Your task to perform on an android device: change notification settings in the gmail app Image 0: 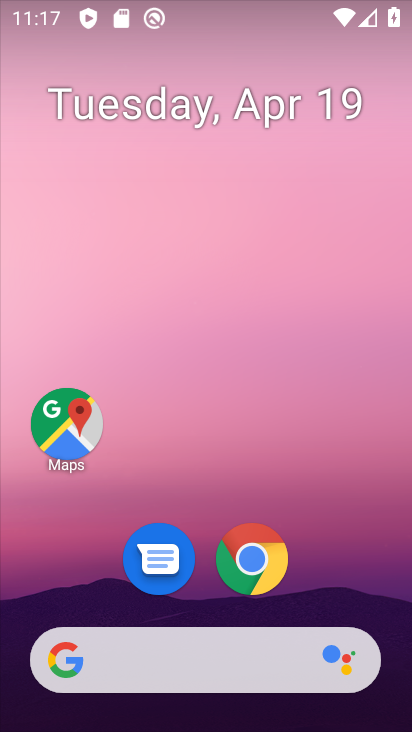
Step 0: click (183, 157)
Your task to perform on an android device: change notification settings in the gmail app Image 1: 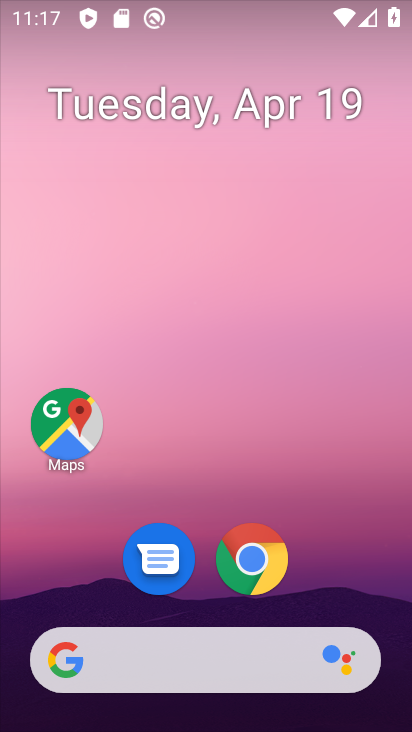
Step 1: drag from (265, 656) to (132, 196)
Your task to perform on an android device: change notification settings in the gmail app Image 2: 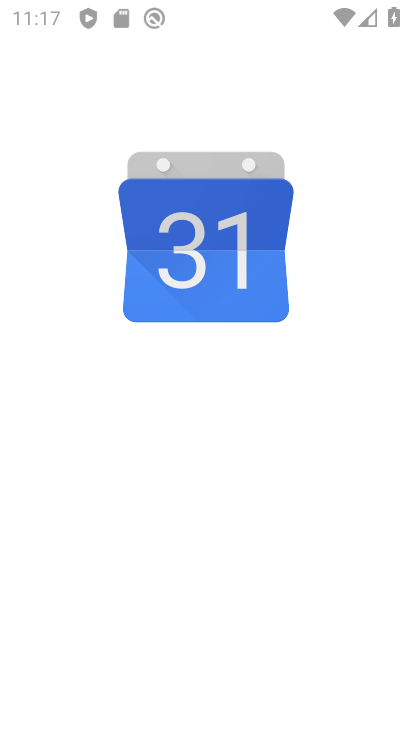
Step 2: drag from (188, 374) to (188, 170)
Your task to perform on an android device: change notification settings in the gmail app Image 3: 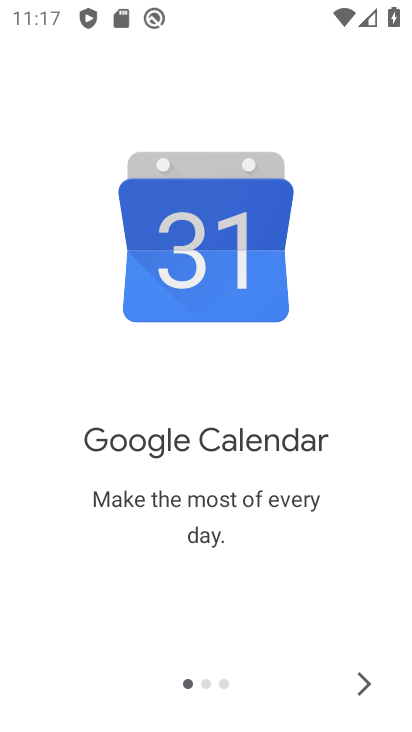
Step 3: click (363, 678)
Your task to perform on an android device: change notification settings in the gmail app Image 4: 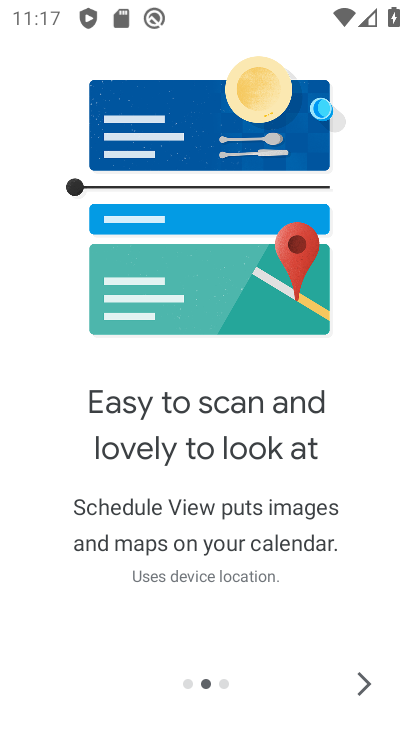
Step 4: click (364, 679)
Your task to perform on an android device: change notification settings in the gmail app Image 5: 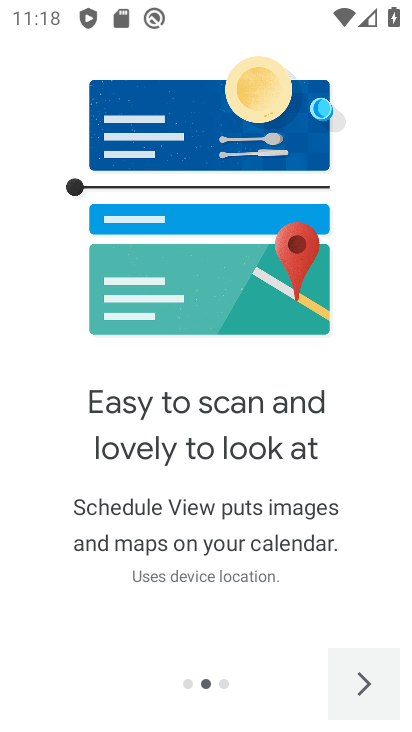
Step 5: click (362, 680)
Your task to perform on an android device: change notification settings in the gmail app Image 6: 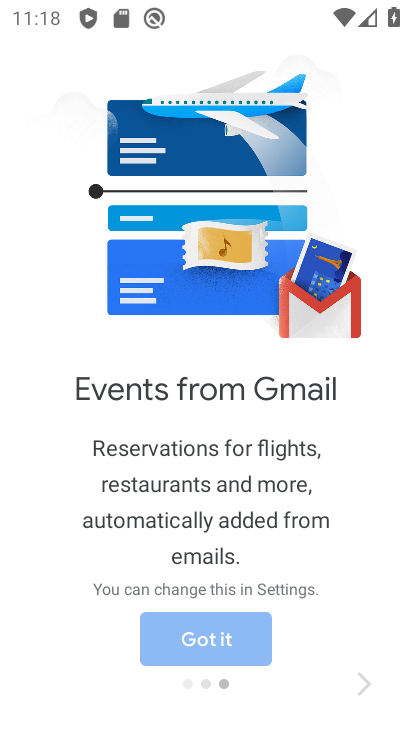
Step 6: click (362, 681)
Your task to perform on an android device: change notification settings in the gmail app Image 7: 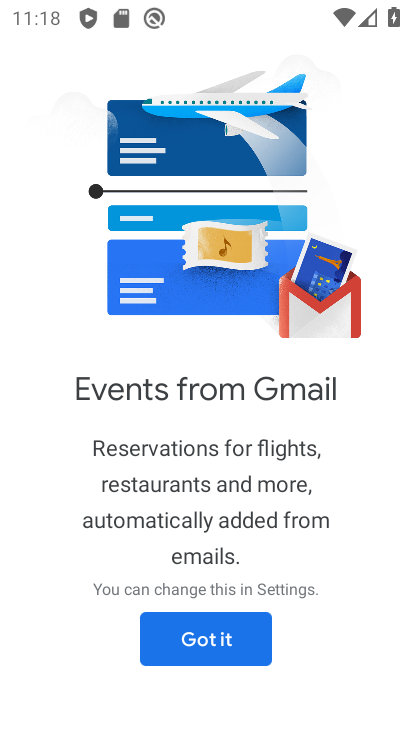
Step 7: click (363, 681)
Your task to perform on an android device: change notification settings in the gmail app Image 8: 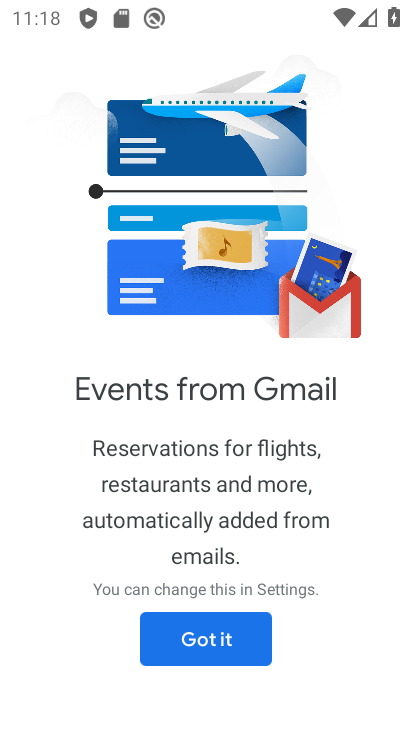
Step 8: click (211, 647)
Your task to perform on an android device: change notification settings in the gmail app Image 9: 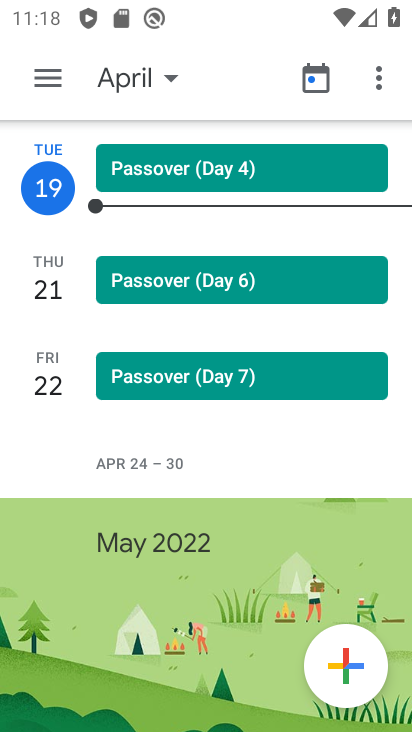
Step 9: press home button
Your task to perform on an android device: change notification settings in the gmail app Image 10: 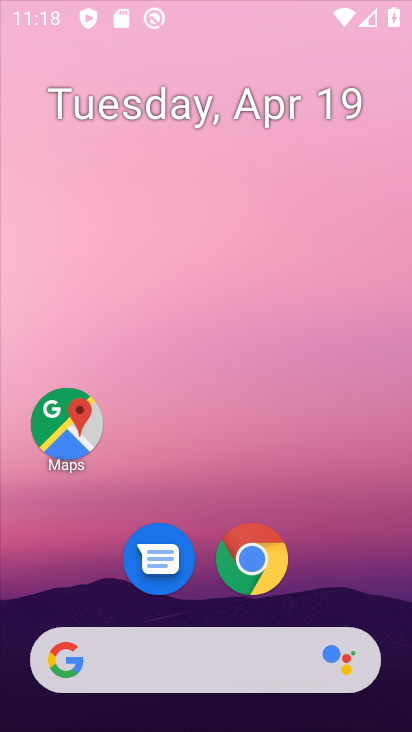
Step 10: press home button
Your task to perform on an android device: change notification settings in the gmail app Image 11: 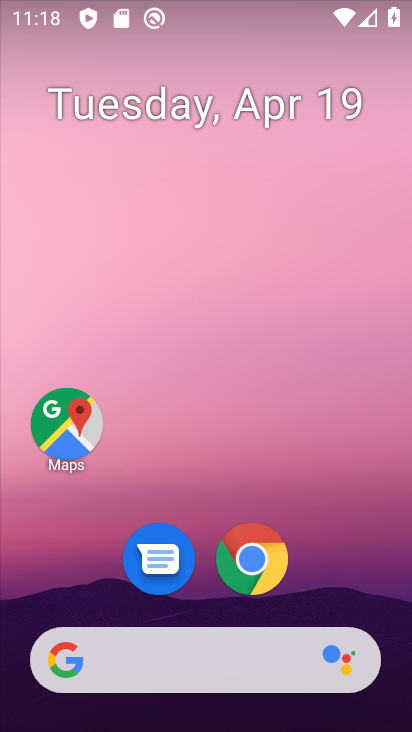
Step 11: click (164, 25)
Your task to perform on an android device: change notification settings in the gmail app Image 12: 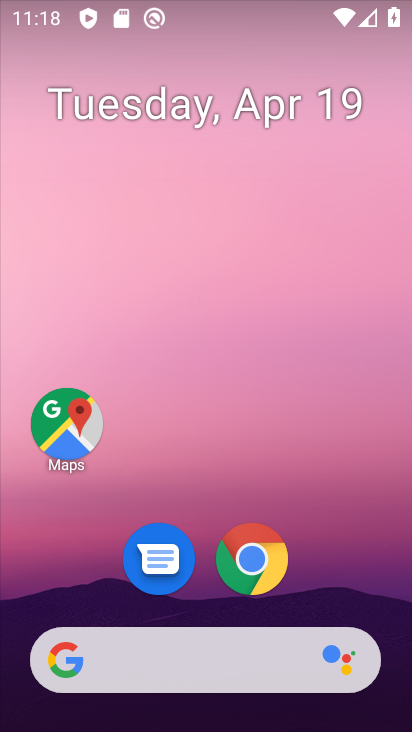
Step 12: drag from (291, 487) to (18, 53)
Your task to perform on an android device: change notification settings in the gmail app Image 13: 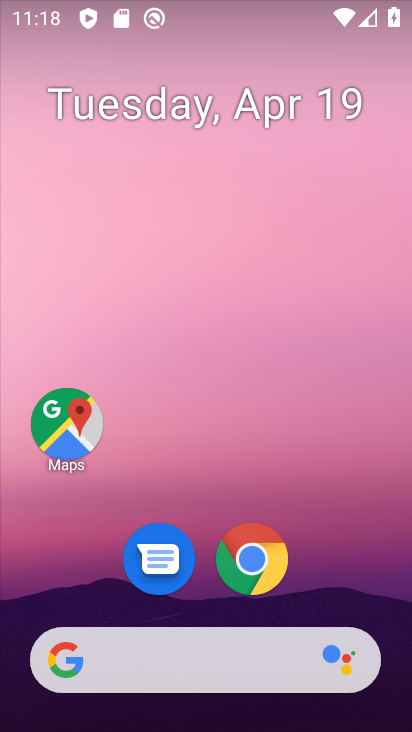
Step 13: drag from (254, 482) to (66, 12)
Your task to perform on an android device: change notification settings in the gmail app Image 14: 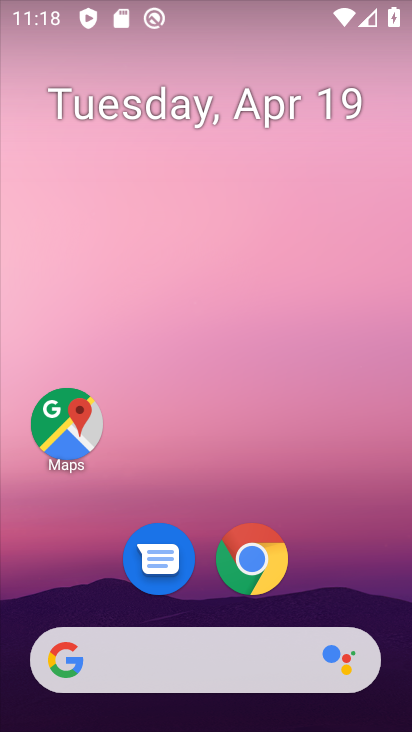
Step 14: drag from (186, 373) to (181, 168)
Your task to perform on an android device: change notification settings in the gmail app Image 15: 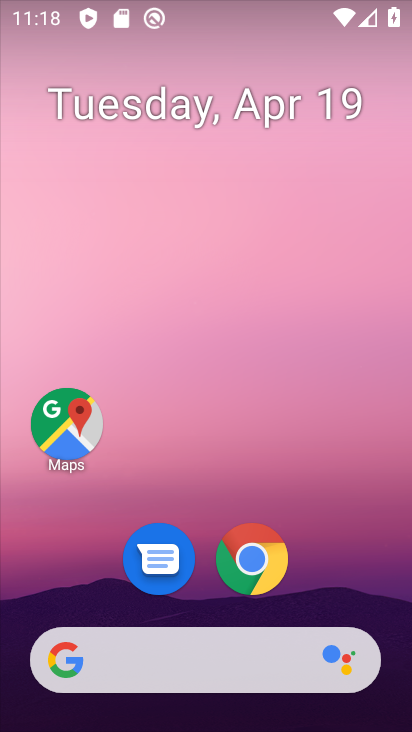
Step 15: drag from (266, 433) to (80, 54)
Your task to perform on an android device: change notification settings in the gmail app Image 16: 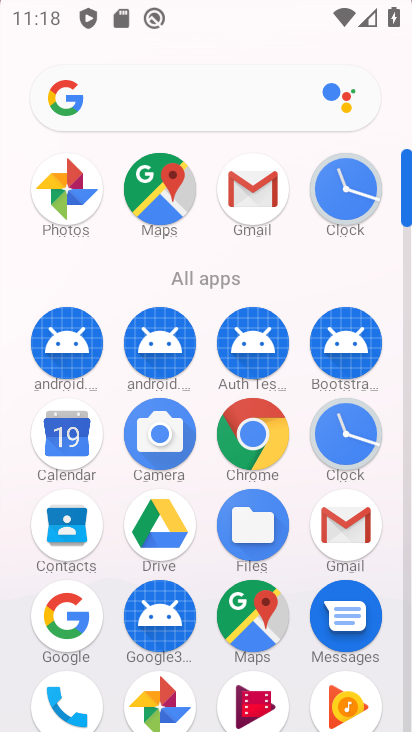
Step 16: drag from (220, 456) to (57, 181)
Your task to perform on an android device: change notification settings in the gmail app Image 17: 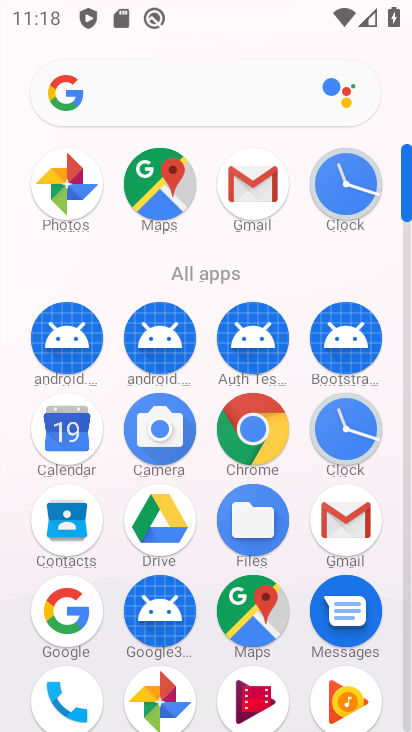
Step 17: click (247, 189)
Your task to perform on an android device: change notification settings in the gmail app Image 18: 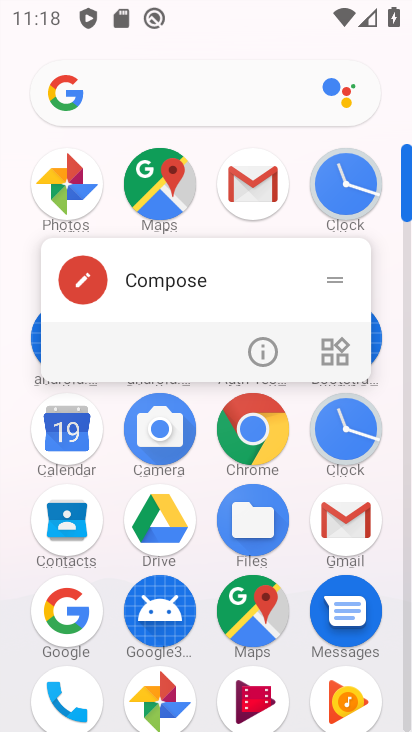
Step 18: click (254, 175)
Your task to perform on an android device: change notification settings in the gmail app Image 19: 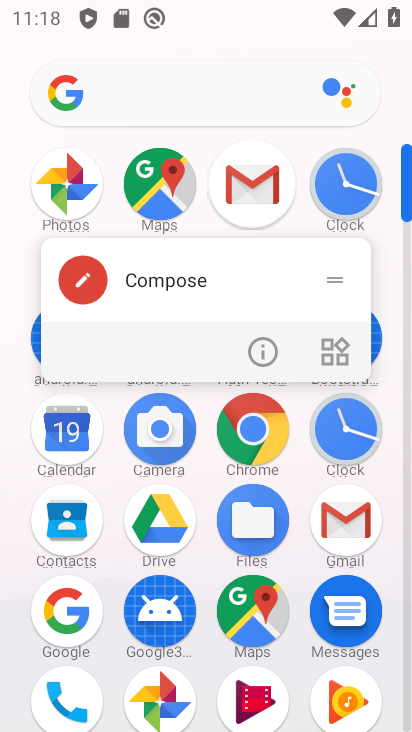
Step 19: click (254, 175)
Your task to perform on an android device: change notification settings in the gmail app Image 20: 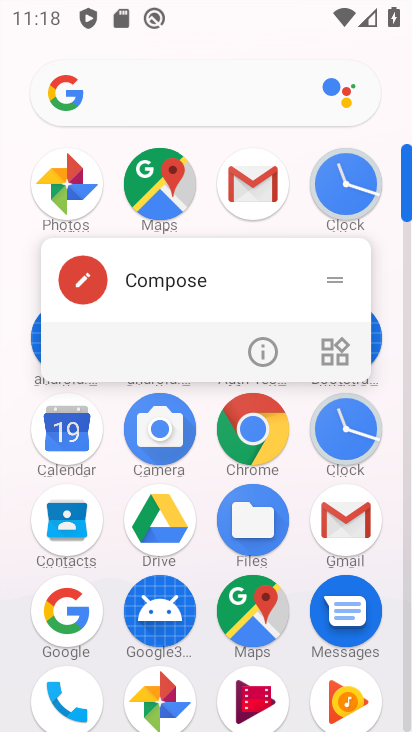
Step 20: click (254, 175)
Your task to perform on an android device: change notification settings in the gmail app Image 21: 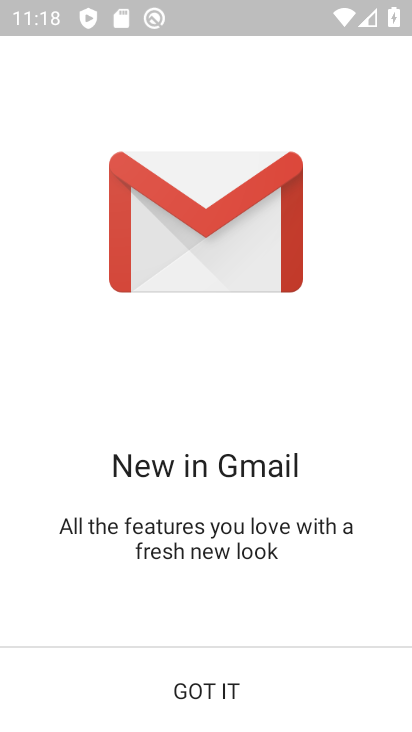
Step 21: click (192, 686)
Your task to perform on an android device: change notification settings in the gmail app Image 22: 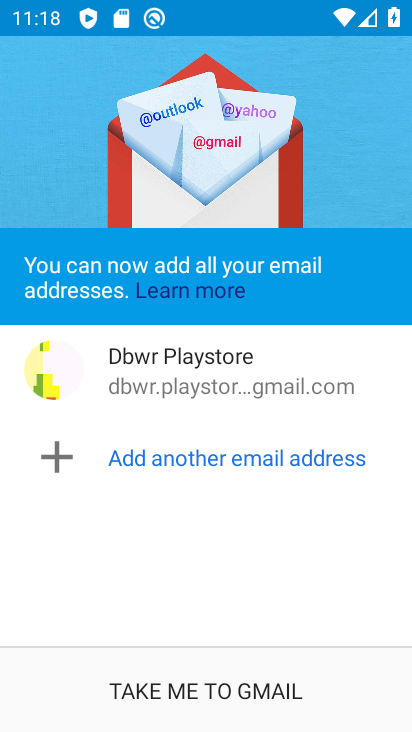
Step 22: click (211, 699)
Your task to perform on an android device: change notification settings in the gmail app Image 23: 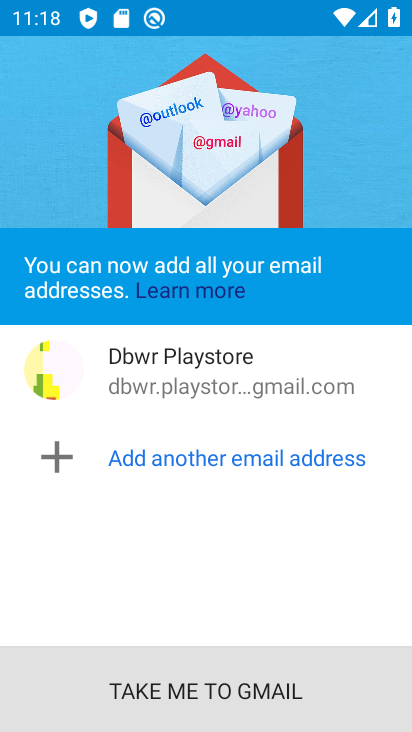
Step 23: click (211, 699)
Your task to perform on an android device: change notification settings in the gmail app Image 24: 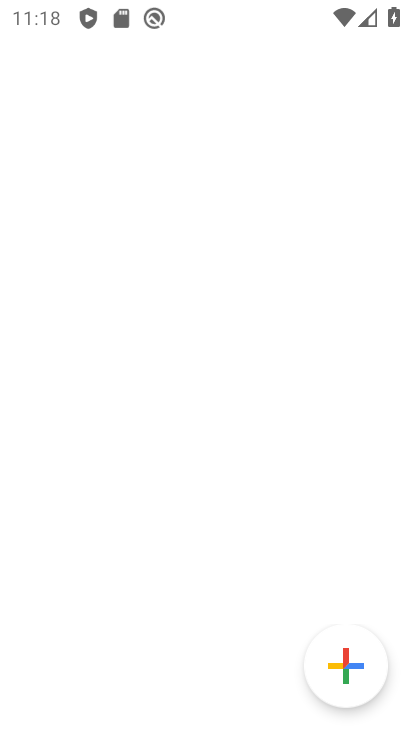
Step 24: click (201, 697)
Your task to perform on an android device: change notification settings in the gmail app Image 25: 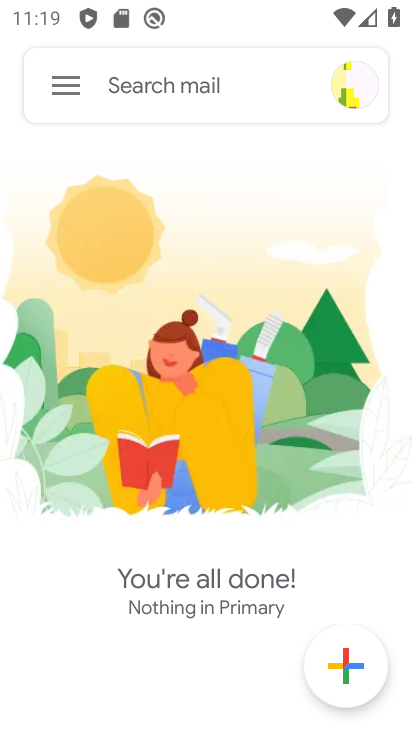
Step 25: click (52, 84)
Your task to perform on an android device: change notification settings in the gmail app Image 26: 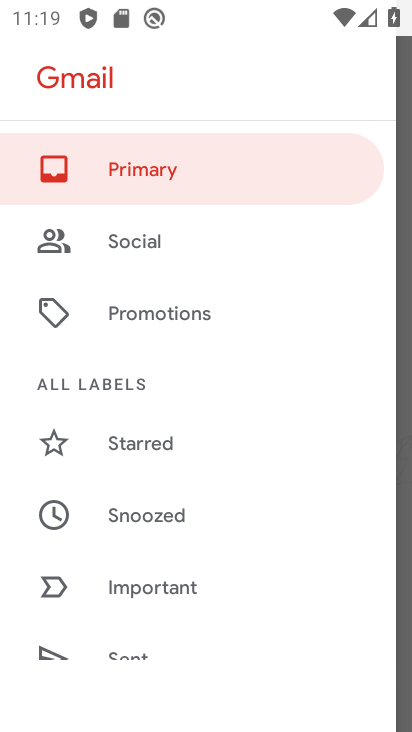
Step 26: drag from (188, 584) to (125, 168)
Your task to perform on an android device: change notification settings in the gmail app Image 27: 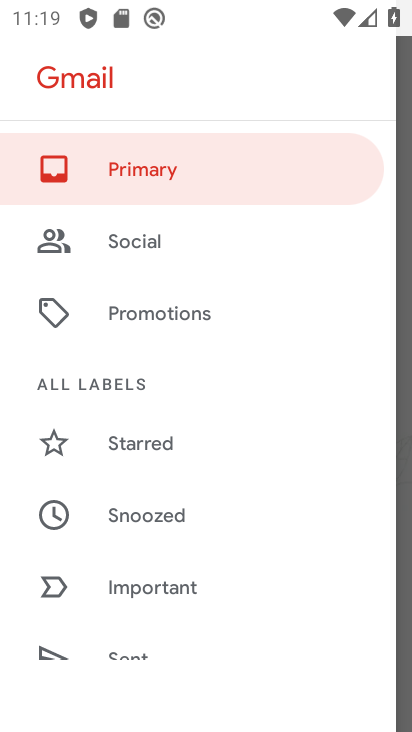
Step 27: drag from (217, 429) to (208, 126)
Your task to perform on an android device: change notification settings in the gmail app Image 28: 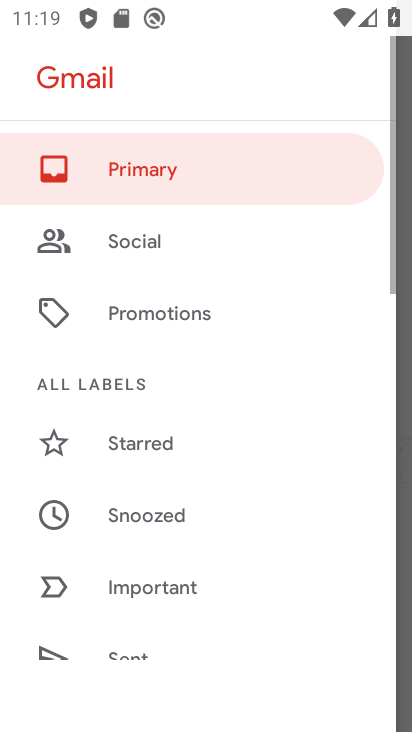
Step 28: drag from (222, 326) to (202, 191)
Your task to perform on an android device: change notification settings in the gmail app Image 29: 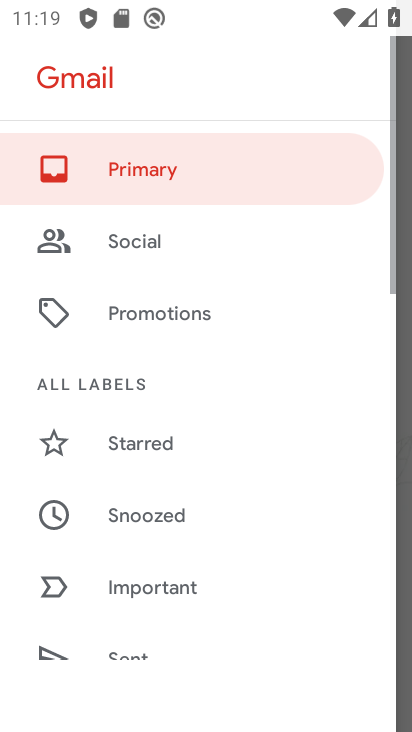
Step 29: click (204, 285)
Your task to perform on an android device: change notification settings in the gmail app Image 30: 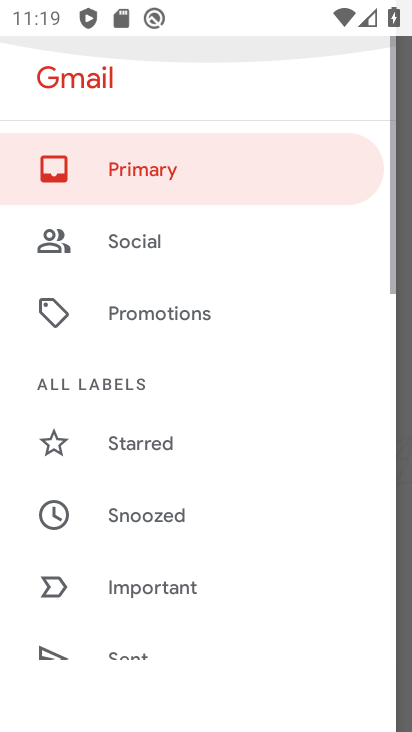
Step 30: drag from (220, 519) to (183, 88)
Your task to perform on an android device: change notification settings in the gmail app Image 31: 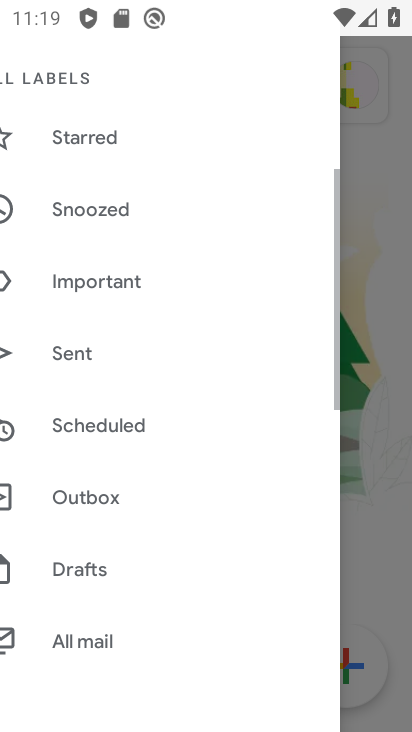
Step 31: drag from (199, 270) to (199, 170)
Your task to perform on an android device: change notification settings in the gmail app Image 32: 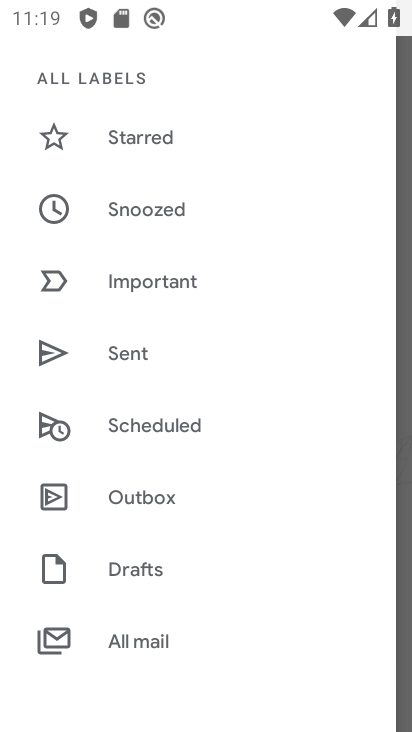
Step 32: click (269, 533)
Your task to perform on an android device: change notification settings in the gmail app Image 33: 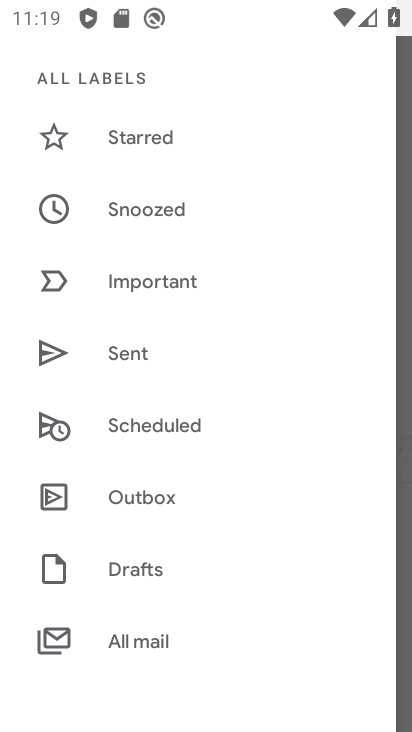
Step 33: click (284, 507)
Your task to perform on an android device: change notification settings in the gmail app Image 34: 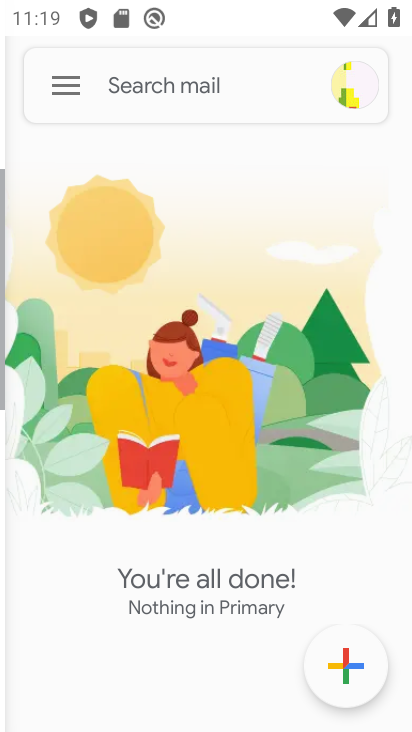
Step 34: drag from (174, 427) to (282, 496)
Your task to perform on an android device: change notification settings in the gmail app Image 35: 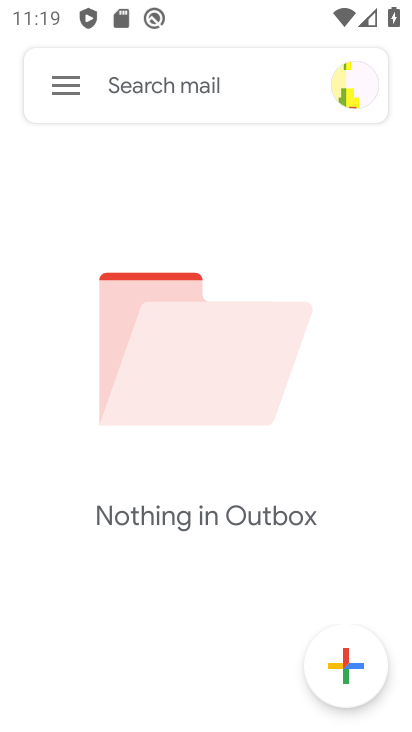
Step 35: click (66, 93)
Your task to perform on an android device: change notification settings in the gmail app Image 36: 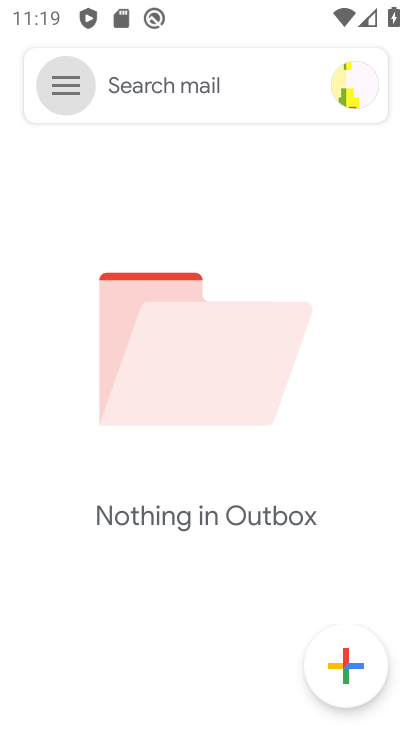
Step 36: click (66, 93)
Your task to perform on an android device: change notification settings in the gmail app Image 37: 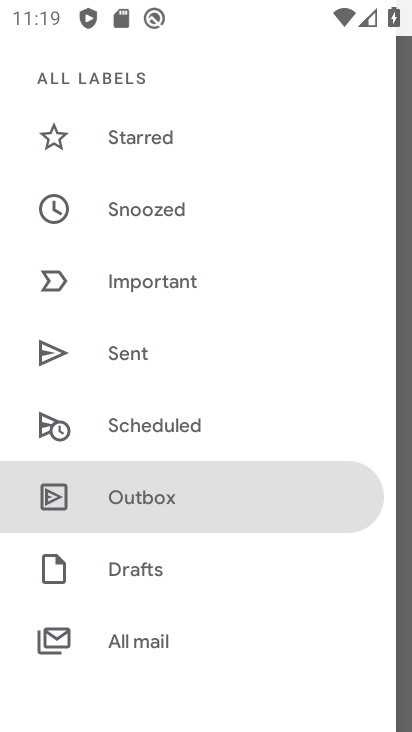
Step 37: drag from (223, 463) to (223, 259)
Your task to perform on an android device: change notification settings in the gmail app Image 38: 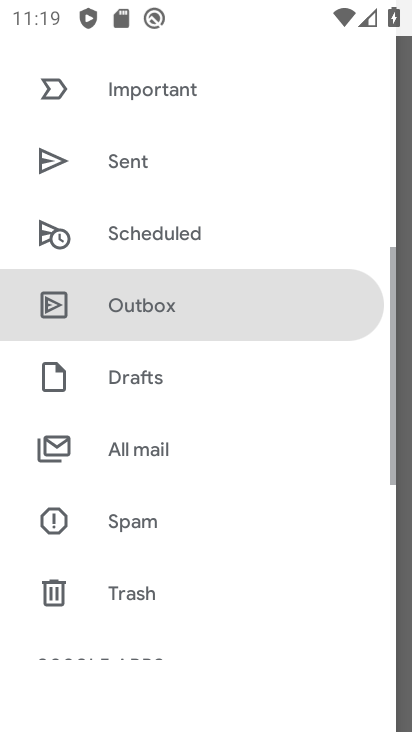
Step 38: drag from (215, 441) to (149, 98)
Your task to perform on an android device: change notification settings in the gmail app Image 39: 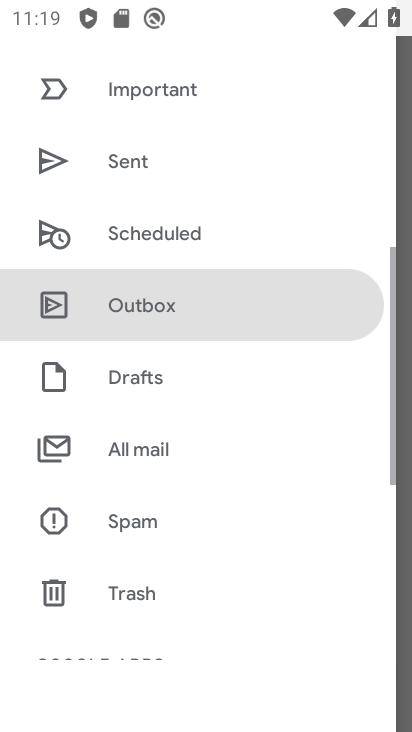
Step 39: drag from (237, 494) to (163, 15)
Your task to perform on an android device: change notification settings in the gmail app Image 40: 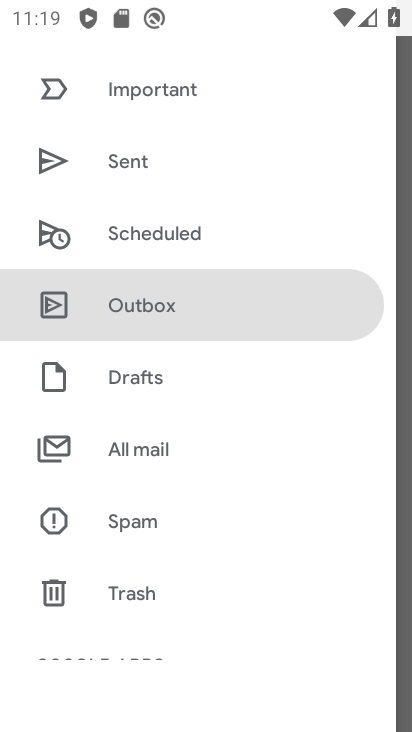
Step 40: drag from (91, 380) to (122, 57)
Your task to perform on an android device: change notification settings in the gmail app Image 41: 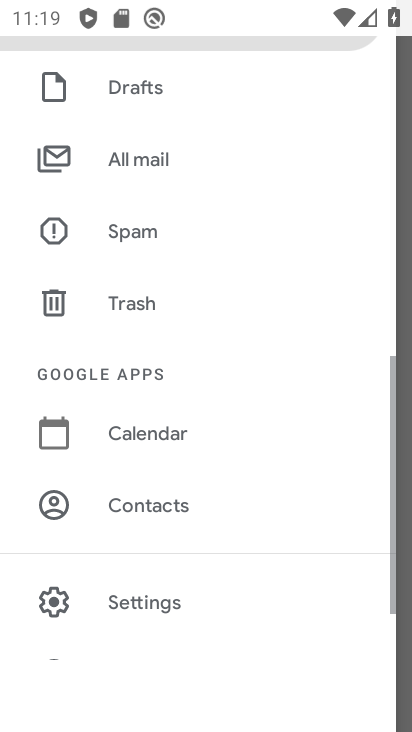
Step 41: drag from (236, 435) to (219, 31)
Your task to perform on an android device: change notification settings in the gmail app Image 42: 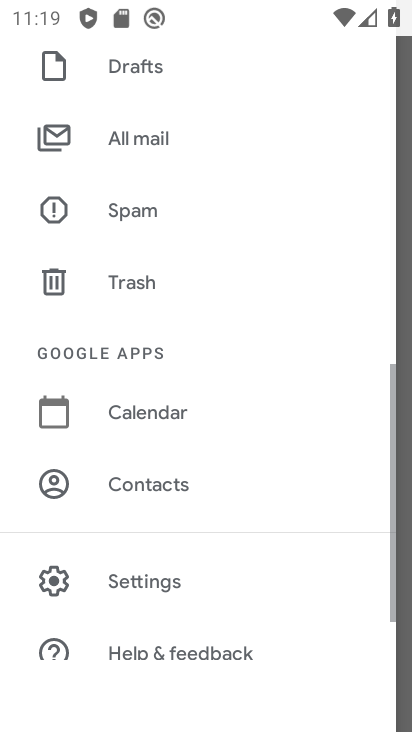
Step 42: click (138, 568)
Your task to perform on an android device: change notification settings in the gmail app Image 43: 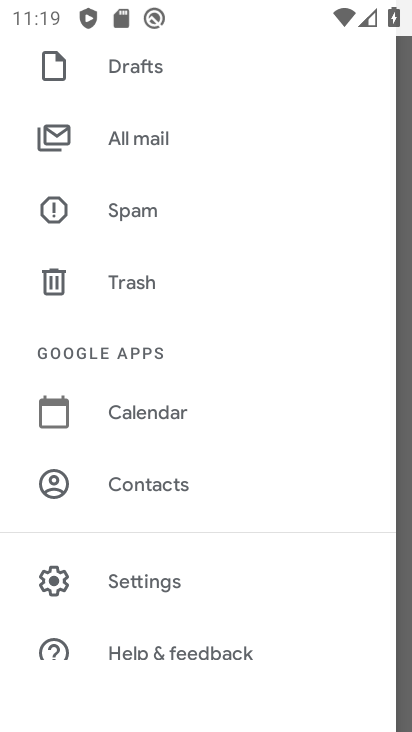
Step 43: click (140, 578)
Your task to perform on an android device: change notification settings in the gmail app Image 44: 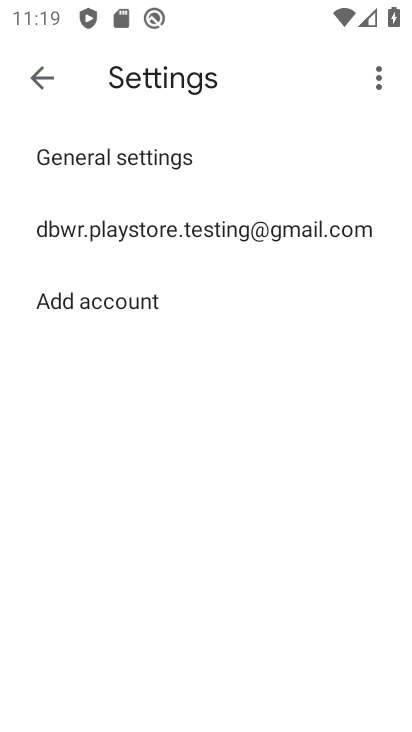
Step 44: click (143, 237)
Your task to perform on an android device: change notification settings in the gmail app Image 45: 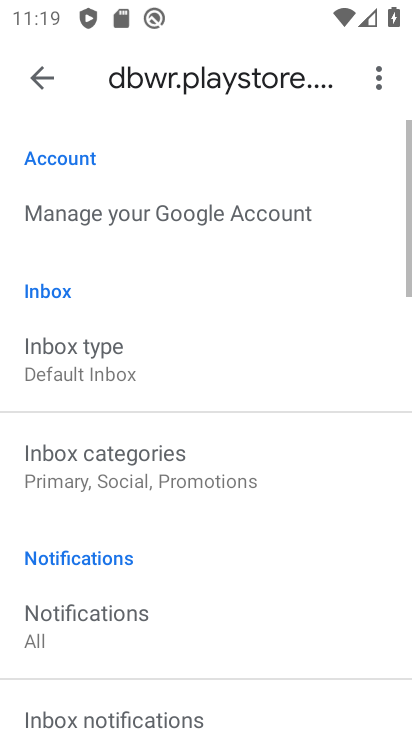
Step 45: drag from (102, 498) to (49, 154)
Your task to perform on an android device: change notification settings in the gmail app Image 46: 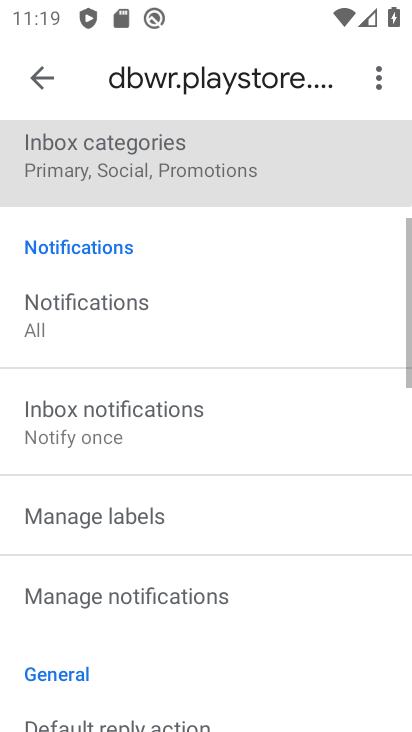
Step 46: drag from (95, 503) to (25, 99)
Your task to perform on an android device: change notification settings in the gmail app Image 47: 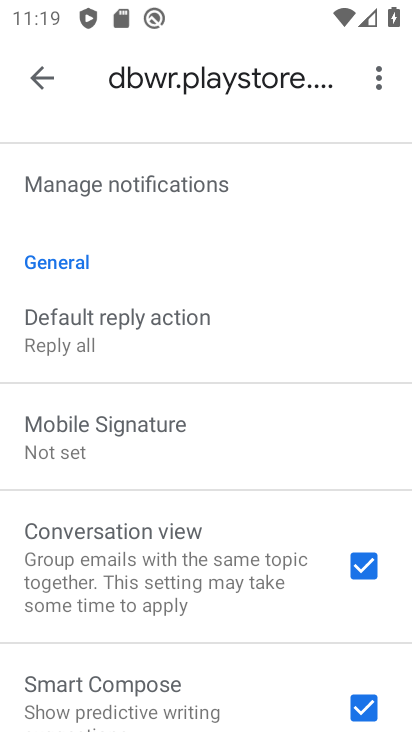
Step 47: drag from (93, 278) to (200, 542)
Your task to perform on an android device: change notification settings in the gmail app Image 48: 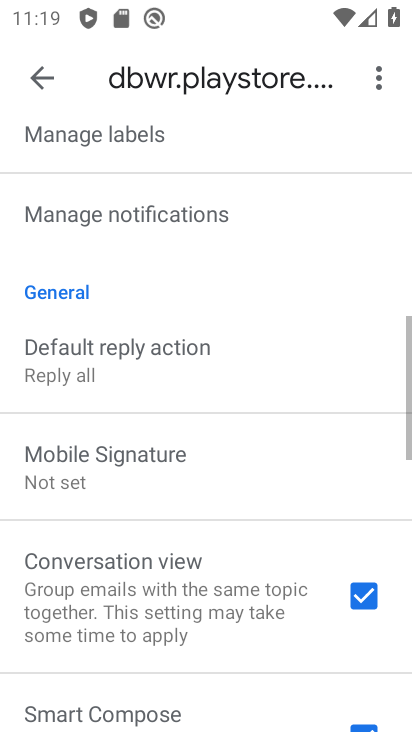
Step 48: drag from (128, 326) to (159, 495)
Your task to perform on an android device: change notification settings in the gmail app Image 49: 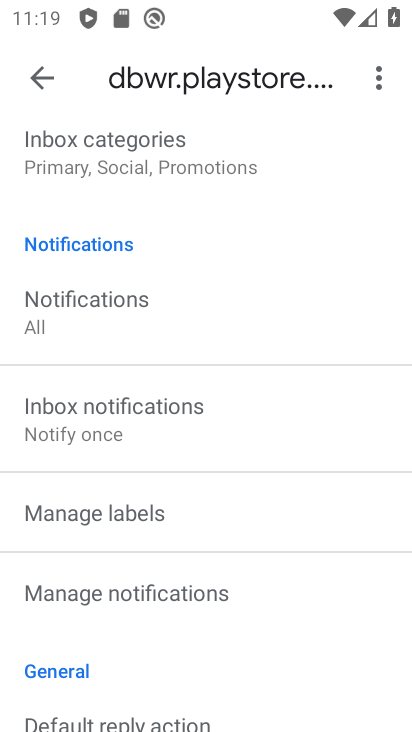
Step 49: click (81, 296)
Your task to perform on an android device: change notification settings in the gmail app Image 50: 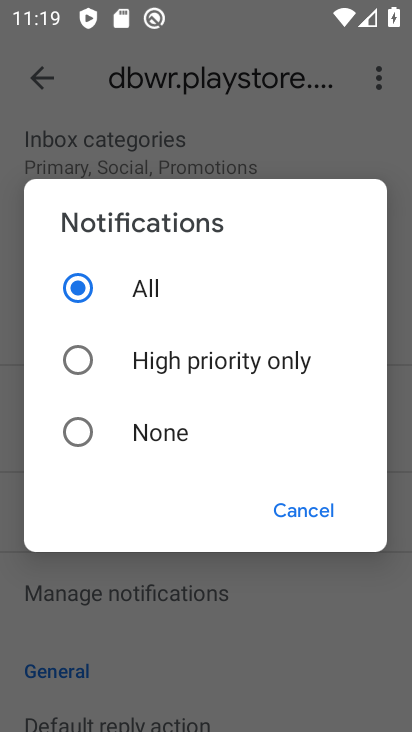
Step 50: click (76, 424)
Your task to perform on an android device: change notification settings in the gmail app Image 51: 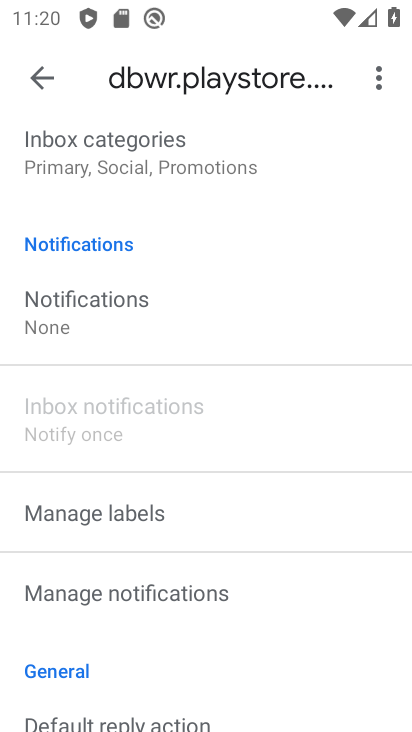
Step 51: task complete